Your task to perform on an android device: Open Reddit.com Image 0: 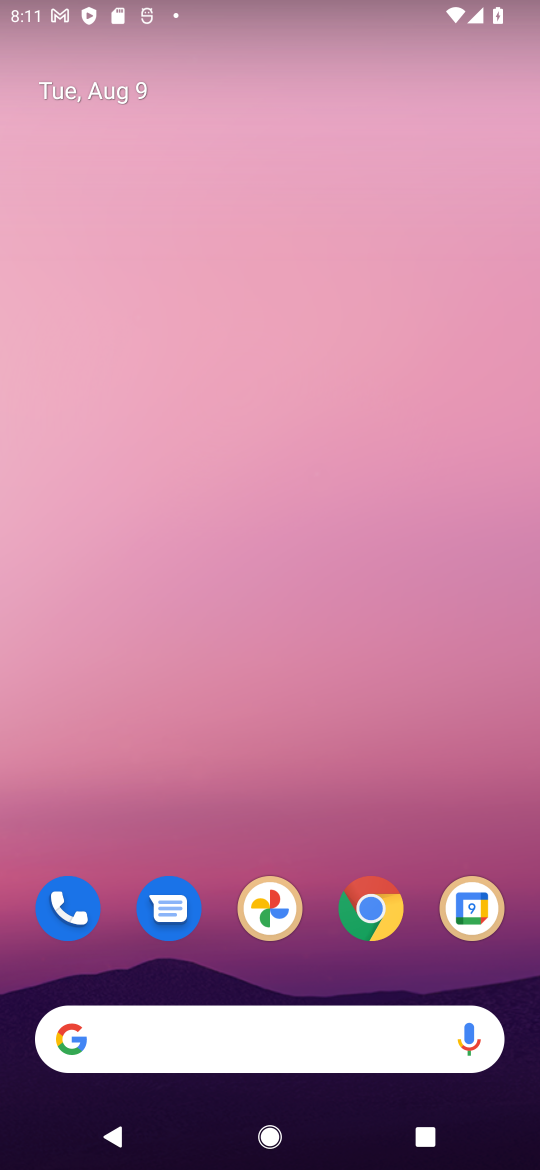
Step 0: click (374, 904)
Your task to perform on an android device: Open Reddit.com Image 1: 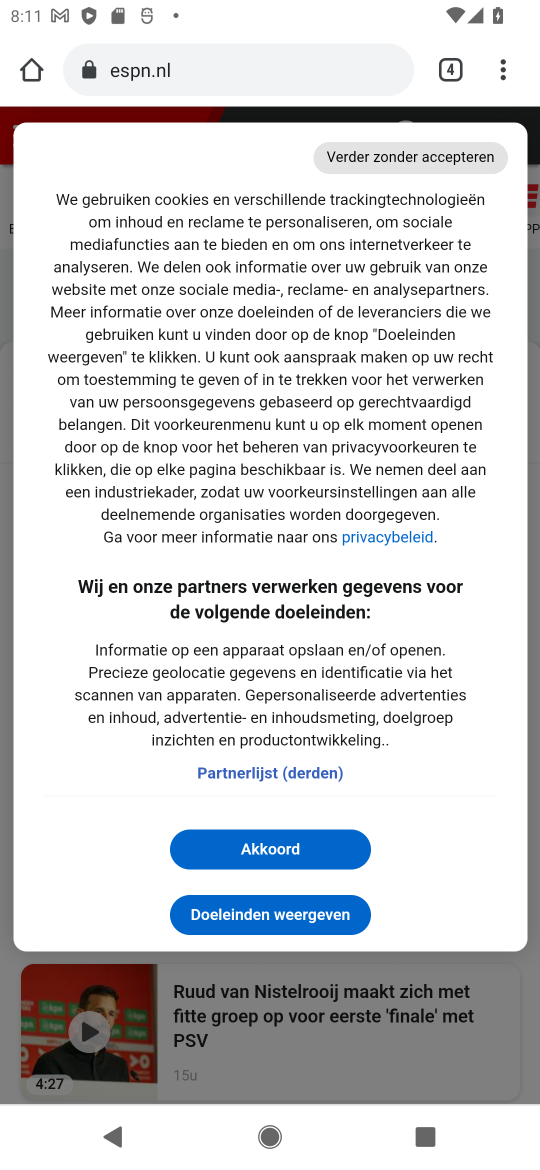
Step 1: drag from (503, 75) to (317, 234)
Your task to perform on an android device: Open Reddit.com Image 2: 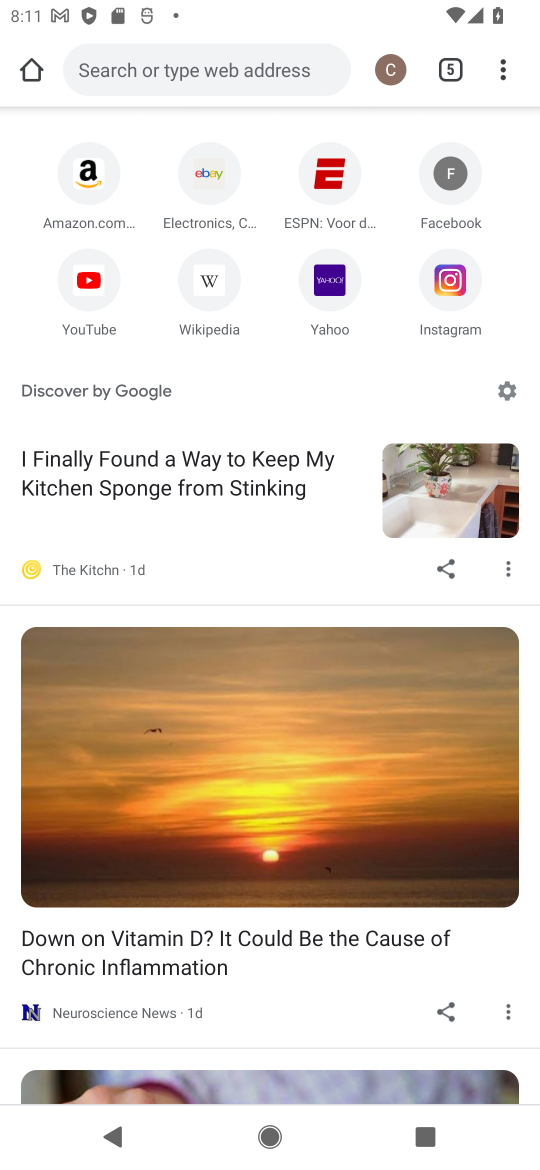
Step 2: click (248, 73)
Your task to perform on an android device: Open Reddit.com Image 3: 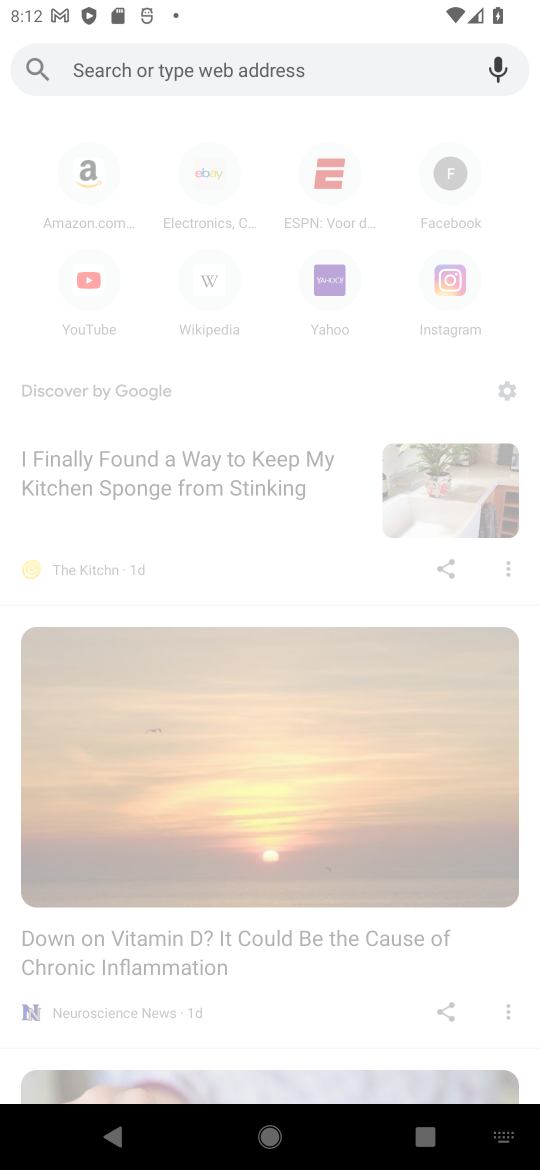
Step 3: type "Reddit.com"
Your task to perform on an android device: Open Reddit.com Image 4: 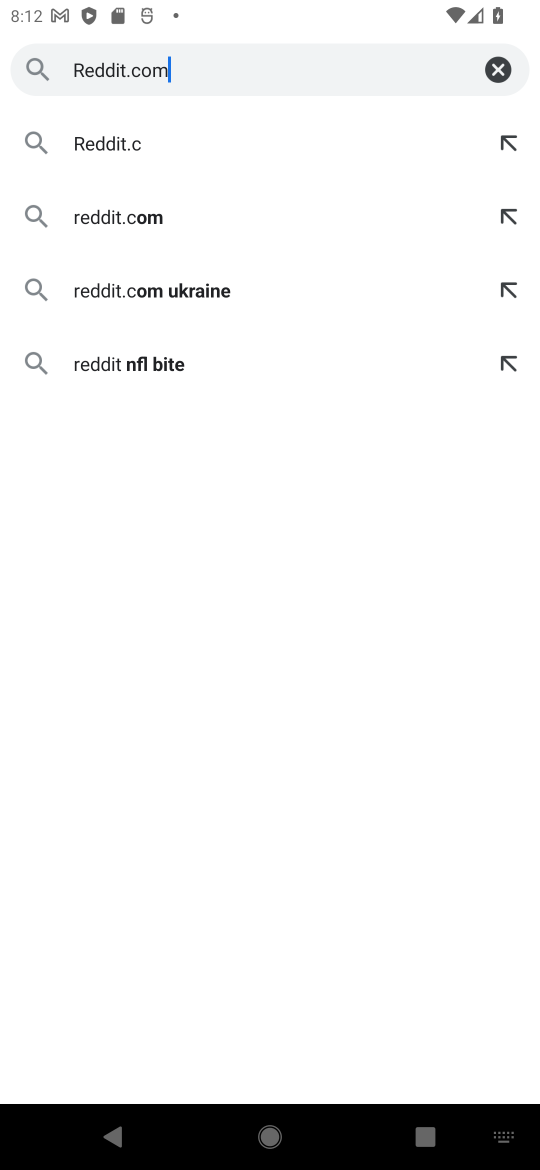
Step 4: type ""
Your task to perform on an android device: Open Reddit.com Image 5: 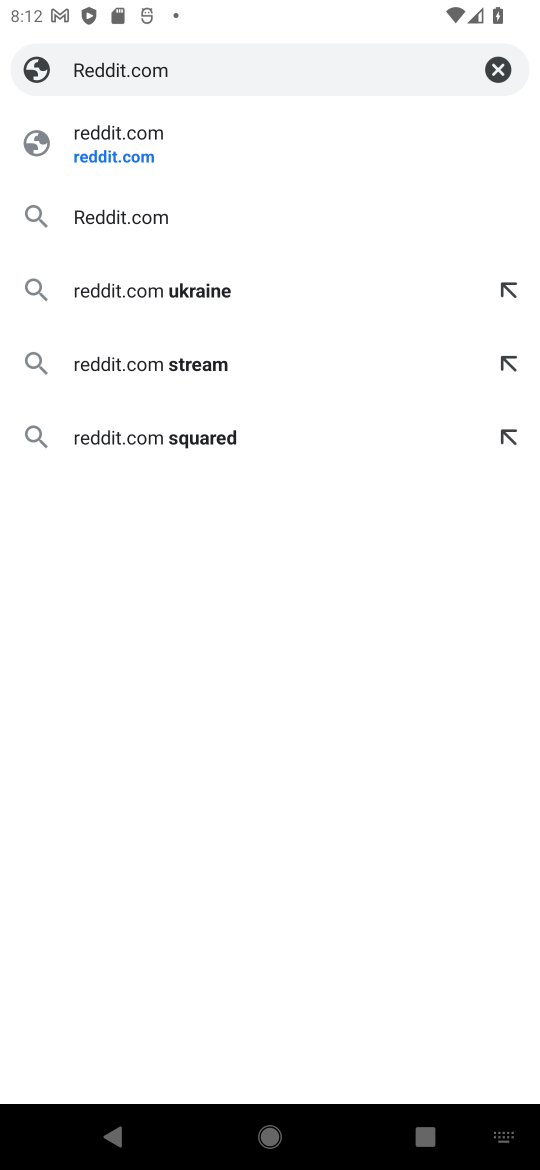
Step 5: click (106, 144)
Your task to perform on an android device: Open Reddit.com Image 6: 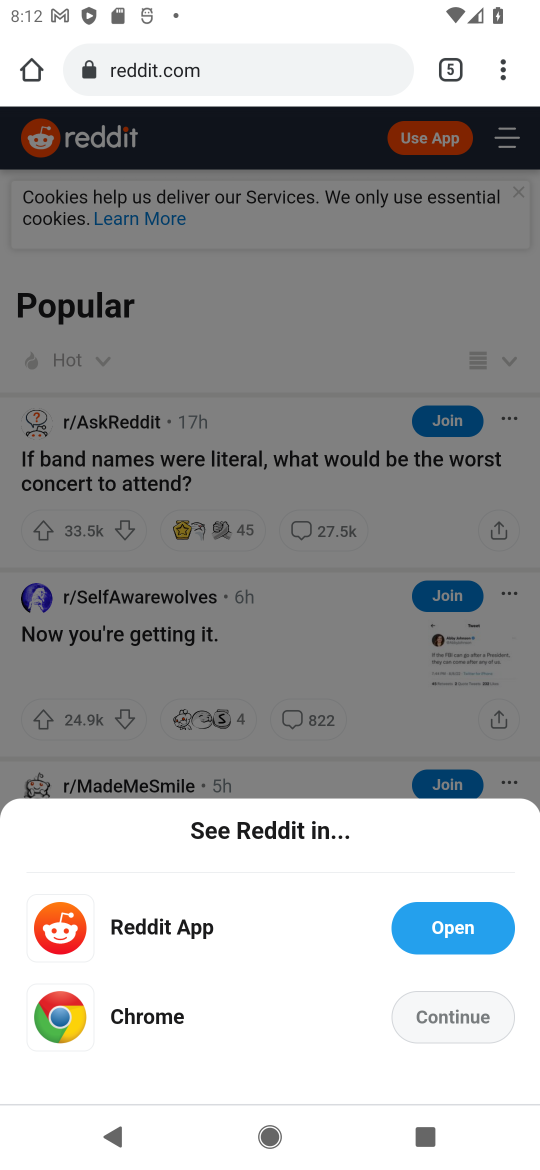
Step 6: task complete